Your task to perform on an android device: Go to Amazon Image 0: 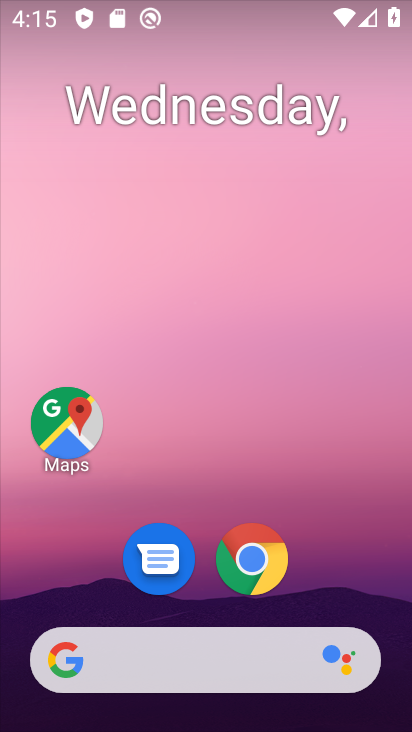
Step 0: click (253, 577)
Your task to perform on an android device: Go to Amazon Image 1: 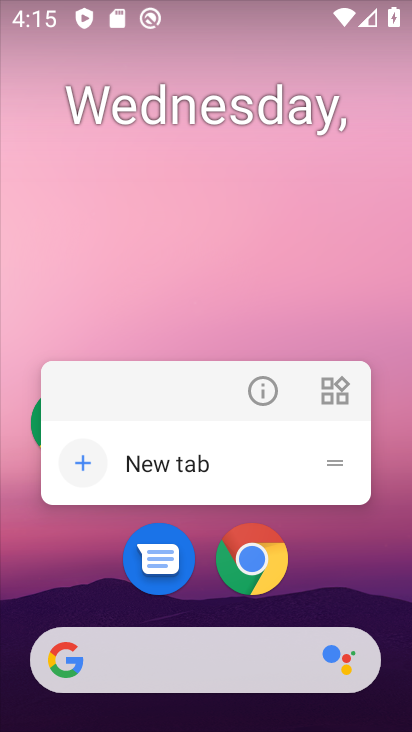
Step 1: click (251, 576)
Your task to perform on an android device: Go to Amazon Image 2: 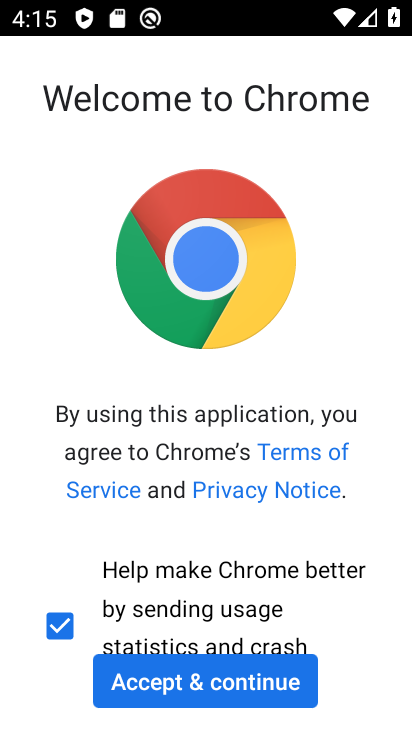
Step 2: click (216, 689)
Your task to perform on an android device: Go to Amazon Image 3: 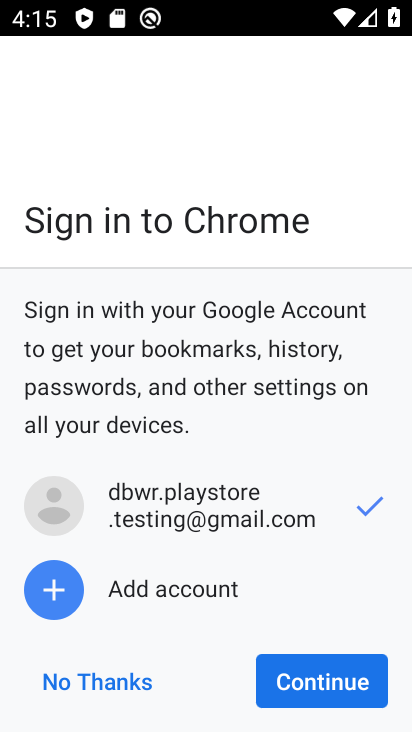
Step 3: click (333, 685)
Your task to perform on an android device: Go to Amazon Image 4: 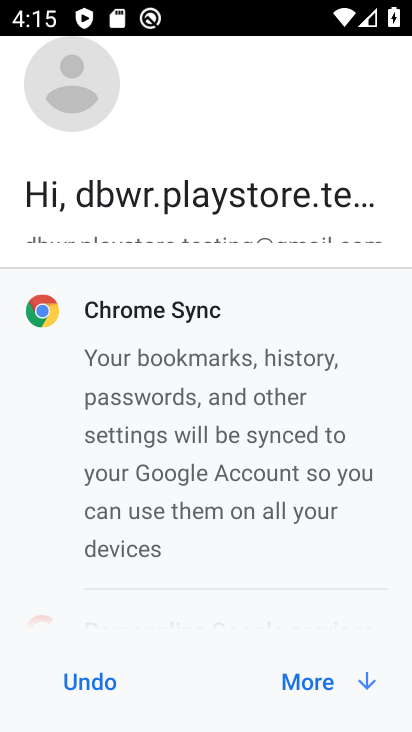
Step 4: click (315, 691)
Your task to perform on an android device: Go to Amazon Image 5: 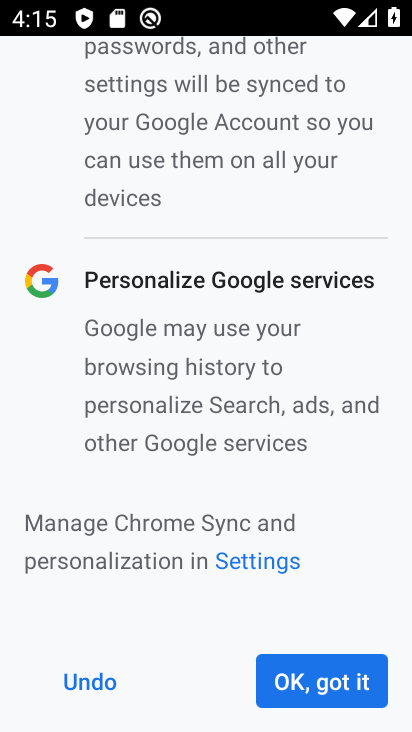
Step 5: click (315, 691)
Your task to perform on an android device: Go to Amazon Image 6: 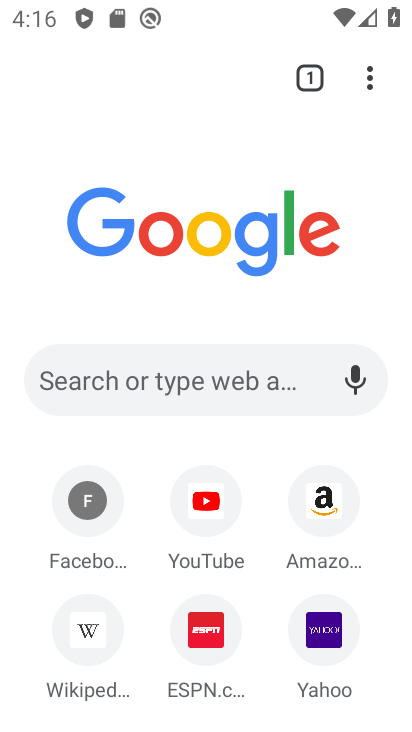
Step 6: click (337, 490)
Your task to perform on an android device: Go to Amazon Image 7: 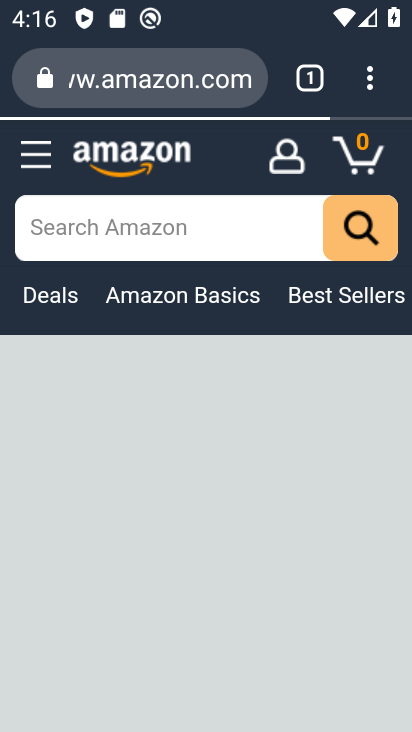
Step 7: task complete